Your task to perform on an android device: toggle javascript in the chrome app Image 0: 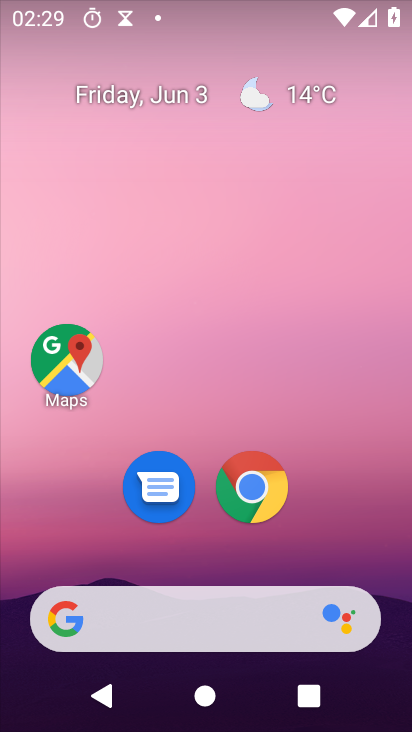
Step 0: click (248, 491)
Your task to perform on an android device: toggle javascript in the chrome app Image 1: 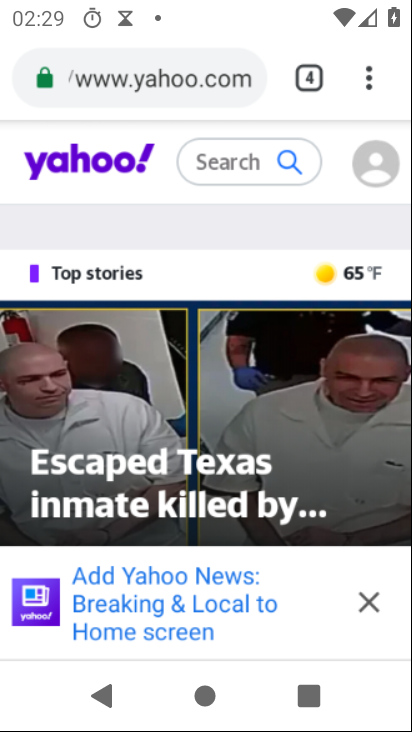
Step 1: click (367, 69)
Your task to perform on an android device: toggle javascript in the chrome app Image 2: 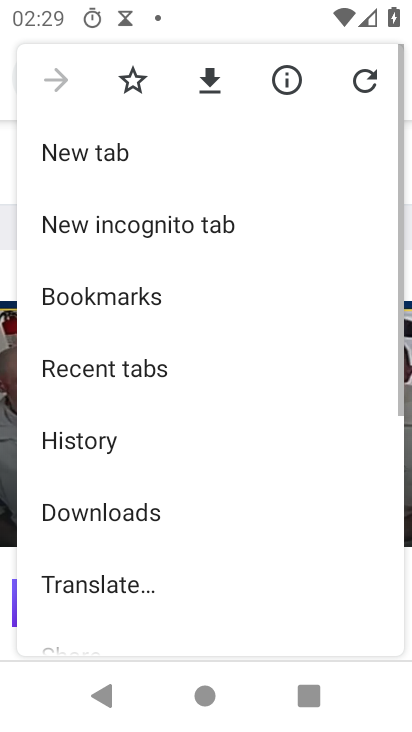
Step 2: drag from (220, 498) to (208, 114)
Your task to perform on an android device: toggle javascript in the chrome app Image 3: 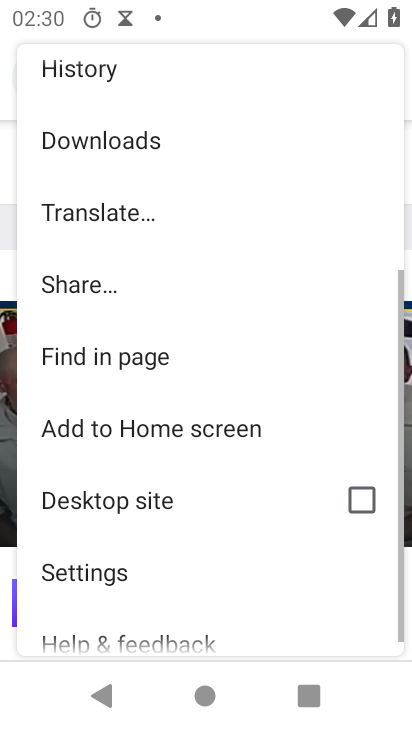
Step 3: click (117, 571)
Your task to perform on an android device: toggle javascript in the chrome app Image 4: 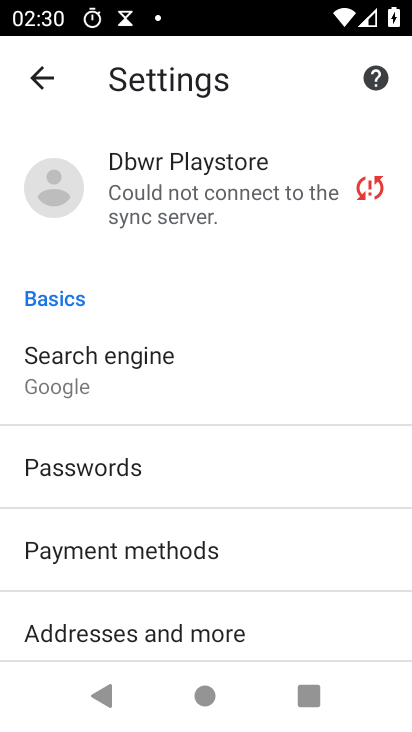
Step 4: drag from (245, 592) to (207, 110)
Your task to perform on an android device: toggle javascript in the chrome app Image 5: 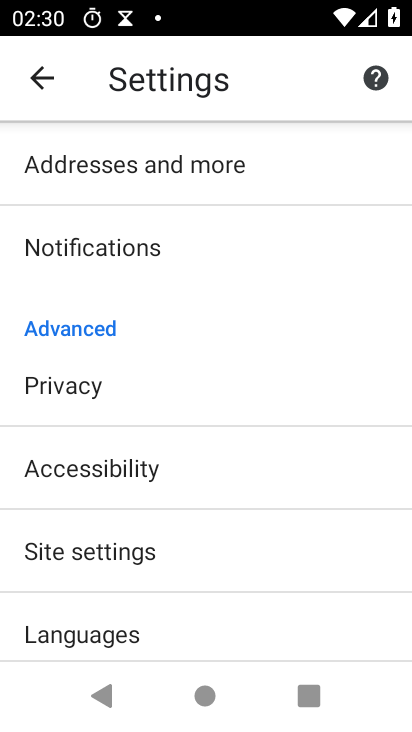
Step 5: click (142, 561)
Your task to perform on an android device: toggle javascript in the chrome app Image 6: 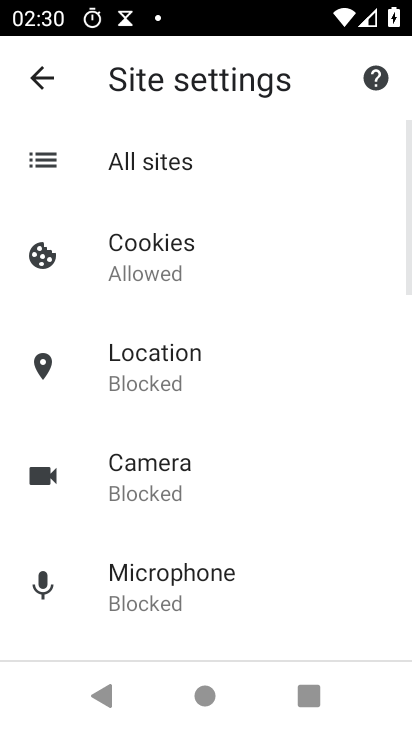
Step 6: drag from (211, 579) to (224, 65)
Your task to perform on an android device: toggle javascript in the chrome app Image 7: 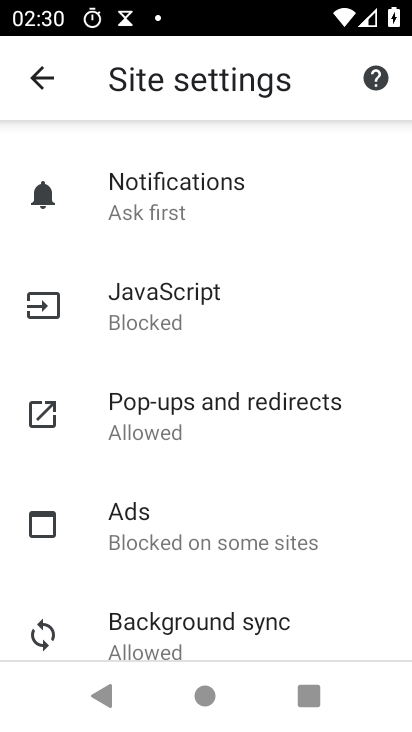
Step 7: click (205, 310)
Your task to perform on an android device: toggle javascript in the chrome app Image 8: 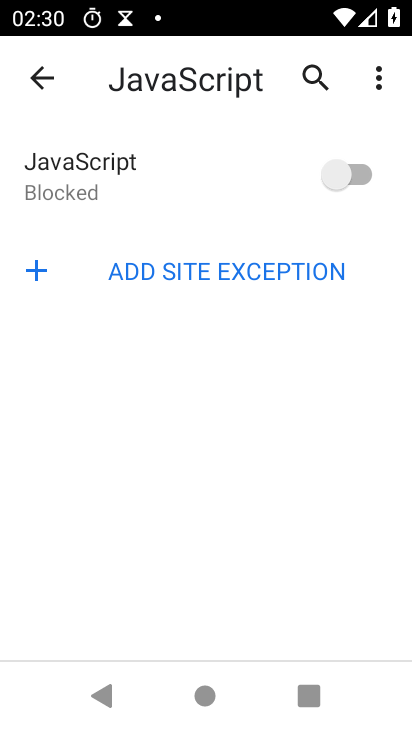
Step 8: click (347, 175)
Your task to perform on an android device: toggle javascript in the chrome app Image 9: 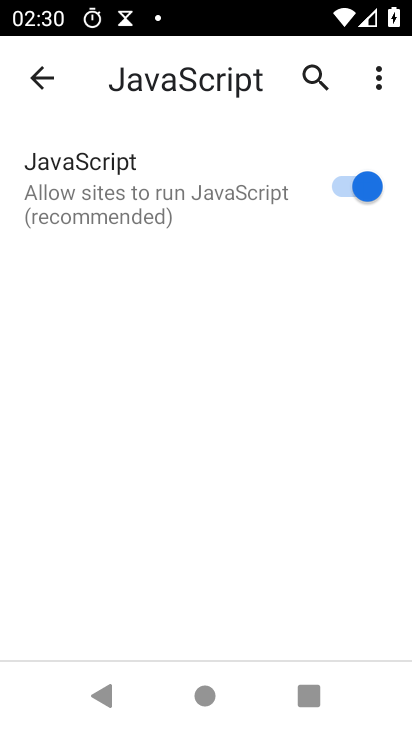
Step 9: task complete